Your task to perform on an android device: open app "DuckDuckGo Privacy Browser" (install if not already installed), go to login, and select forgot password Image 0: 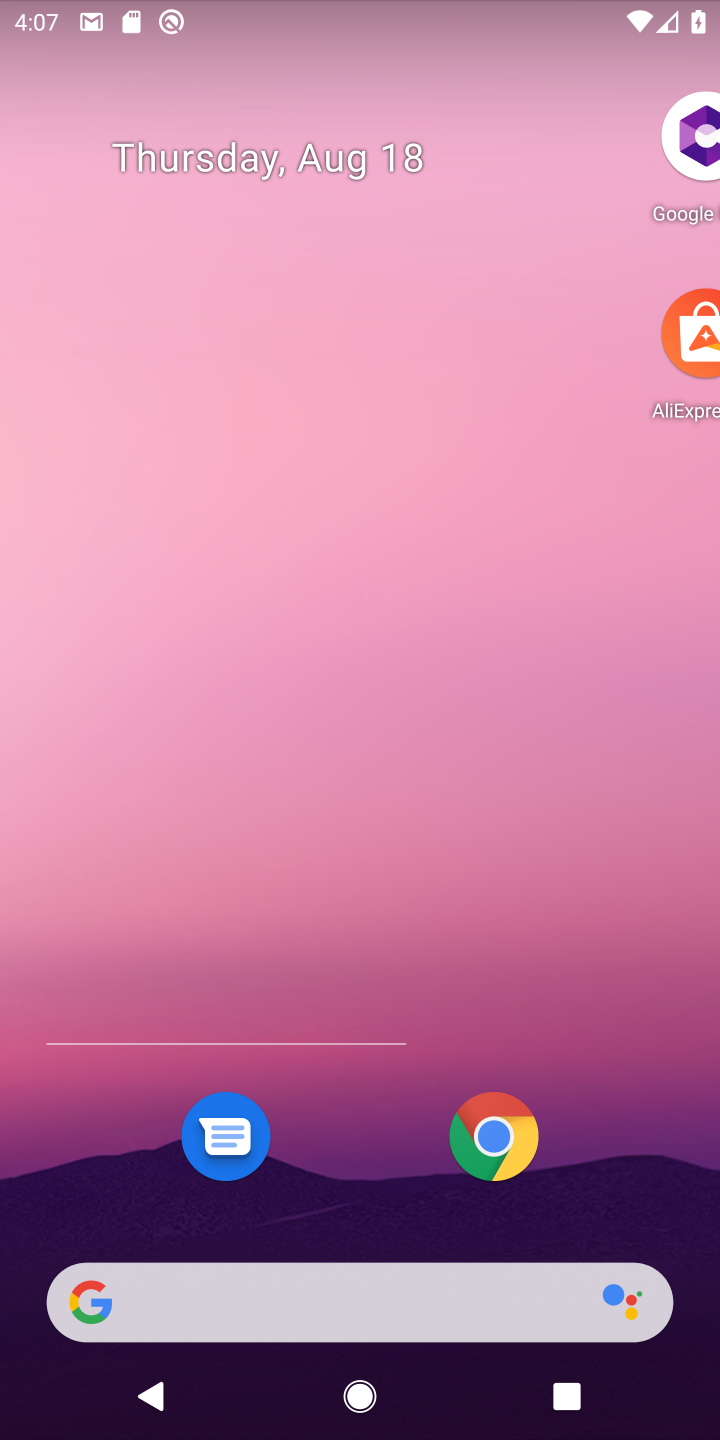
Step 0: click (223, 84)
Your task to perform on an android device: open app "DuckDuckGo Privacy Browser" (install if not already installed), go to login, and select forgot password Image 1: 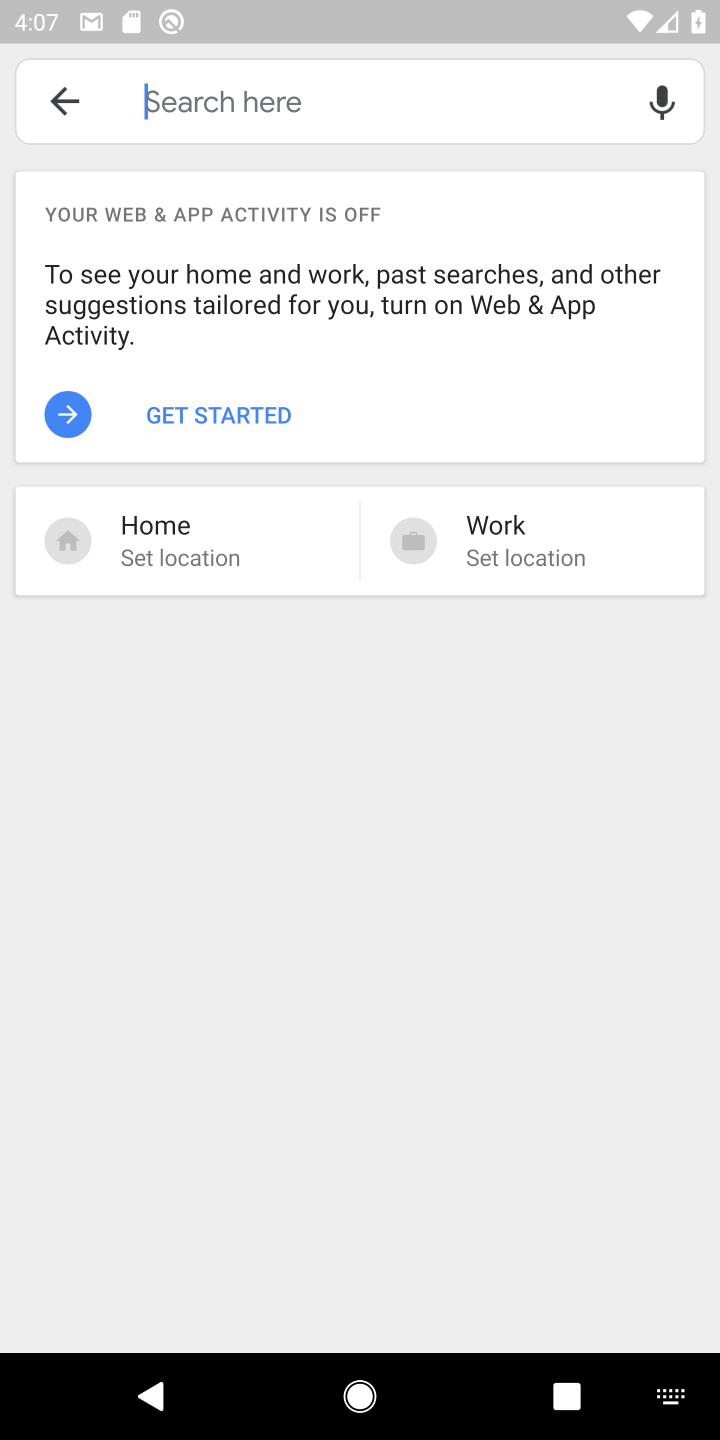
Step 1: press home button
Your task to perform on an android device: open app "DuckDuckGo Privacy Browser" (install if not already installed), go to login, and select forgot password Image 2: 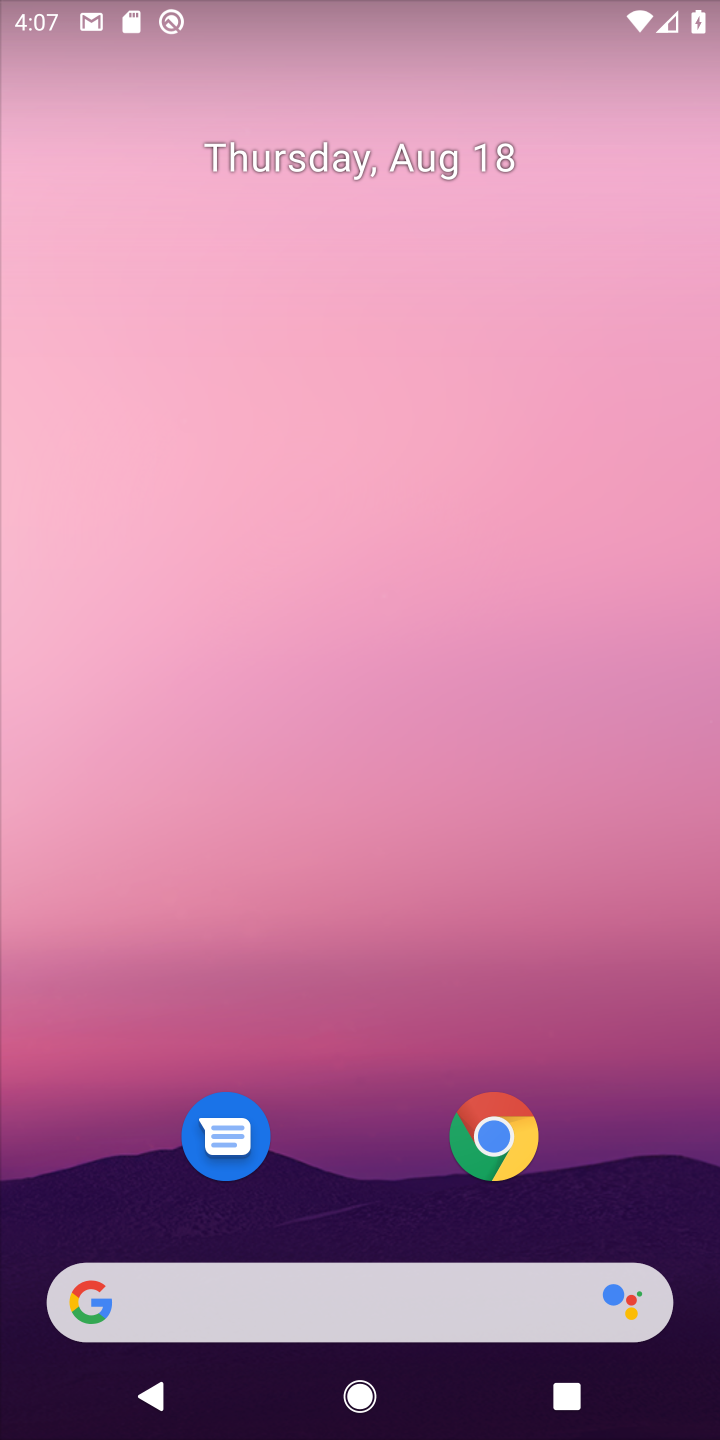
Step 2: drag from (322, 1176) to (346, 437)
Your task to perform on an android device: open app "DuckDuckGo Privacy Browser" (install if not already installed), go to login, and select forgot password Image 3: 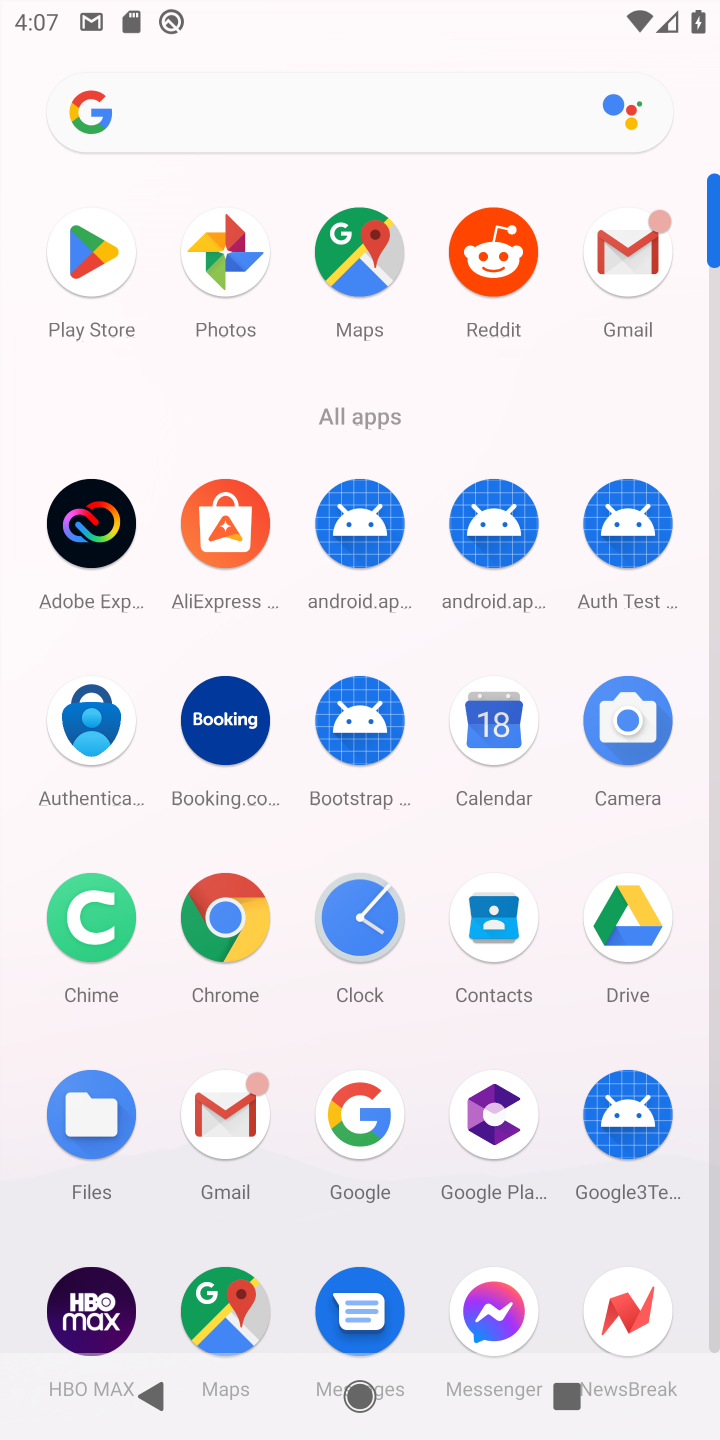
Step 3: drag from (419, 1178) to (438, 332)
Your task to perform on an android device: open app "DuckDuckGo Privacy Browser" (install if not already installed), go to login, and select forgot password Image 4: 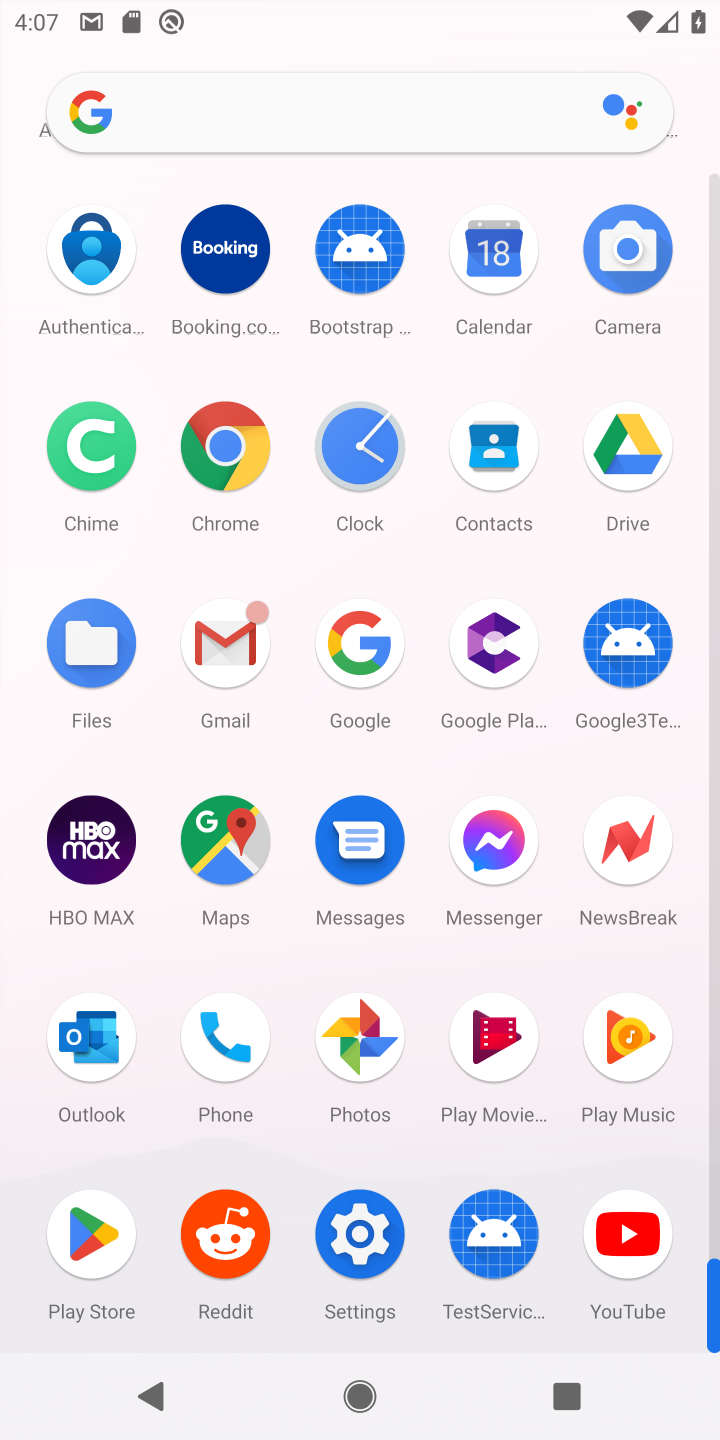
Step 4: click (96, 1252)
Your task to perform on an android device: open app "DuckDuckGo Privacy Browser" (install if not already installed), go to login, and select forgot password Image 5: 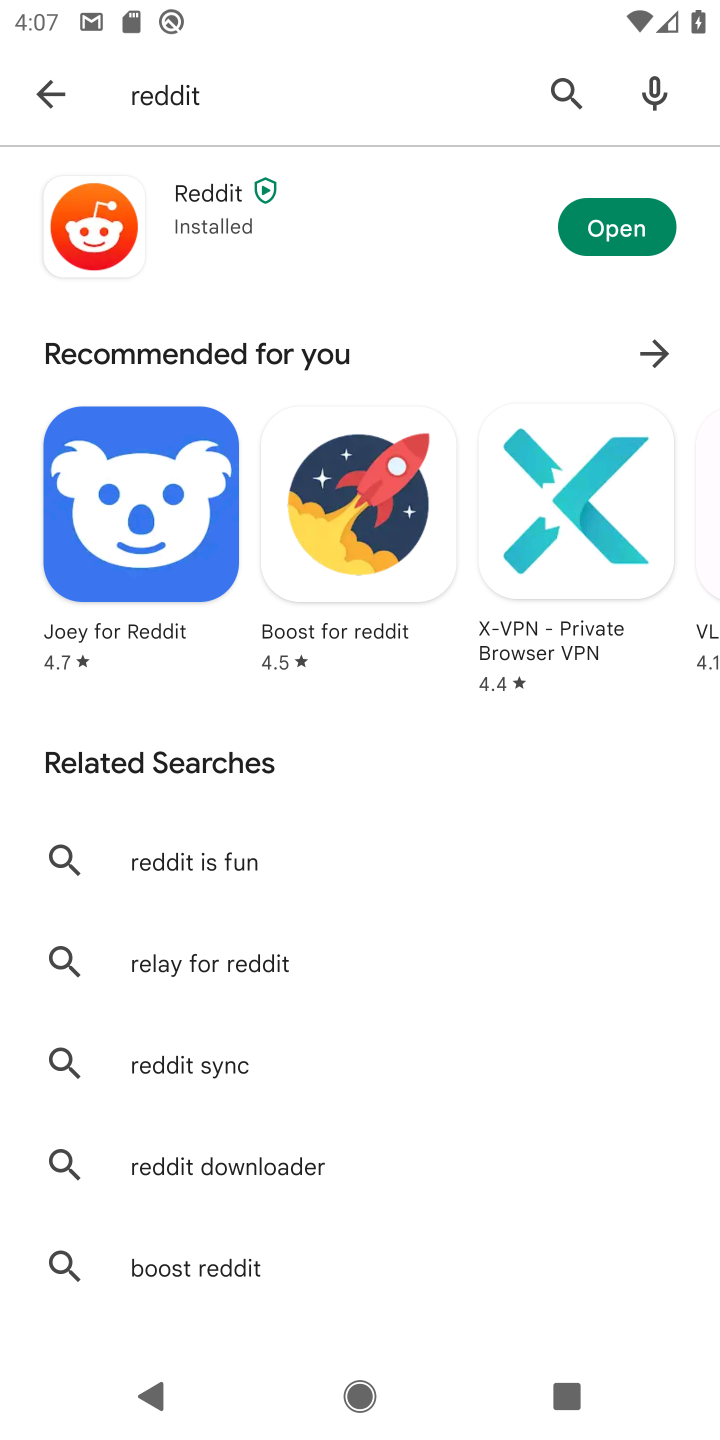
Step 5: click (223, 106)
Your task to perform on an android device: open app "DuckDuckGo Privacy Browser" (install if not already installed), go to login, and select forgot password Image 6: 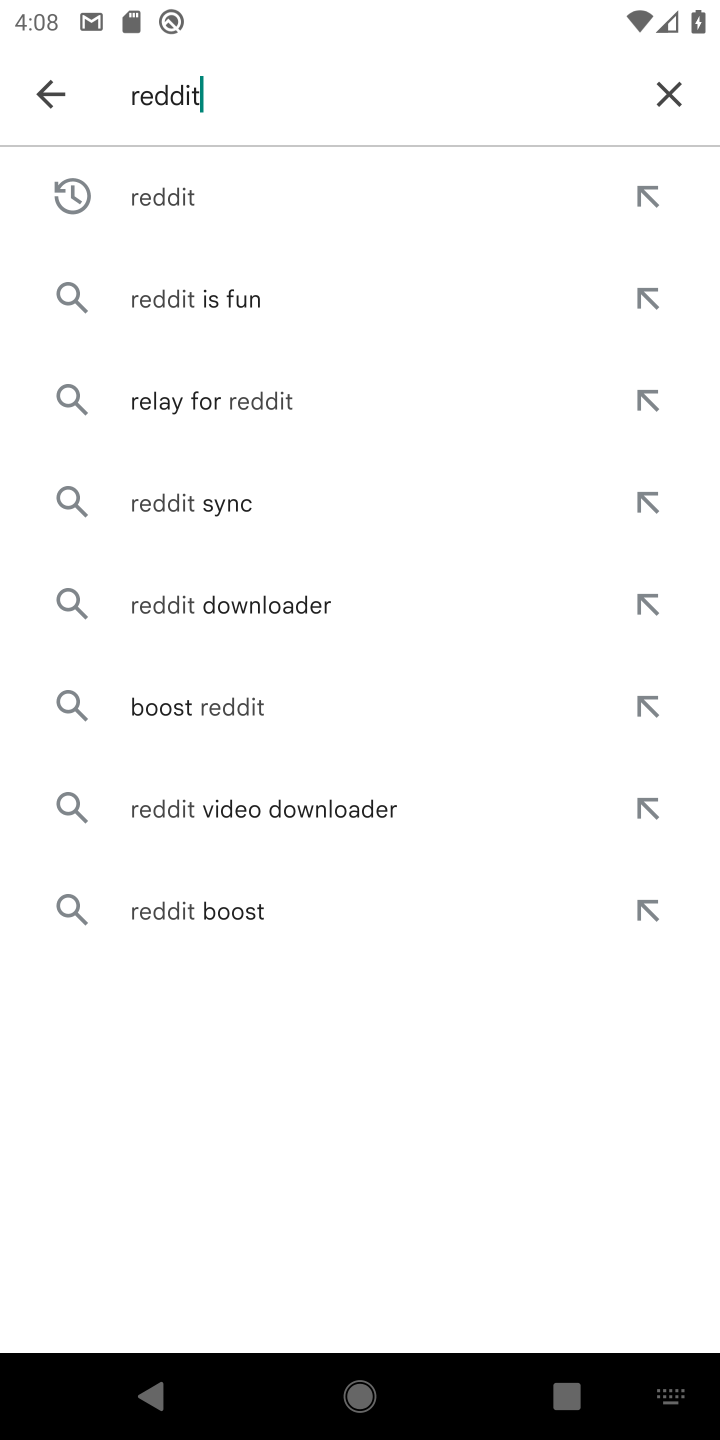
Step 6: click (666, 80)
Your task to perform on an android device: open app "DuckDuckGo Privacy Browser" (install if not already installed), go to login, and select forgot password Image 7: 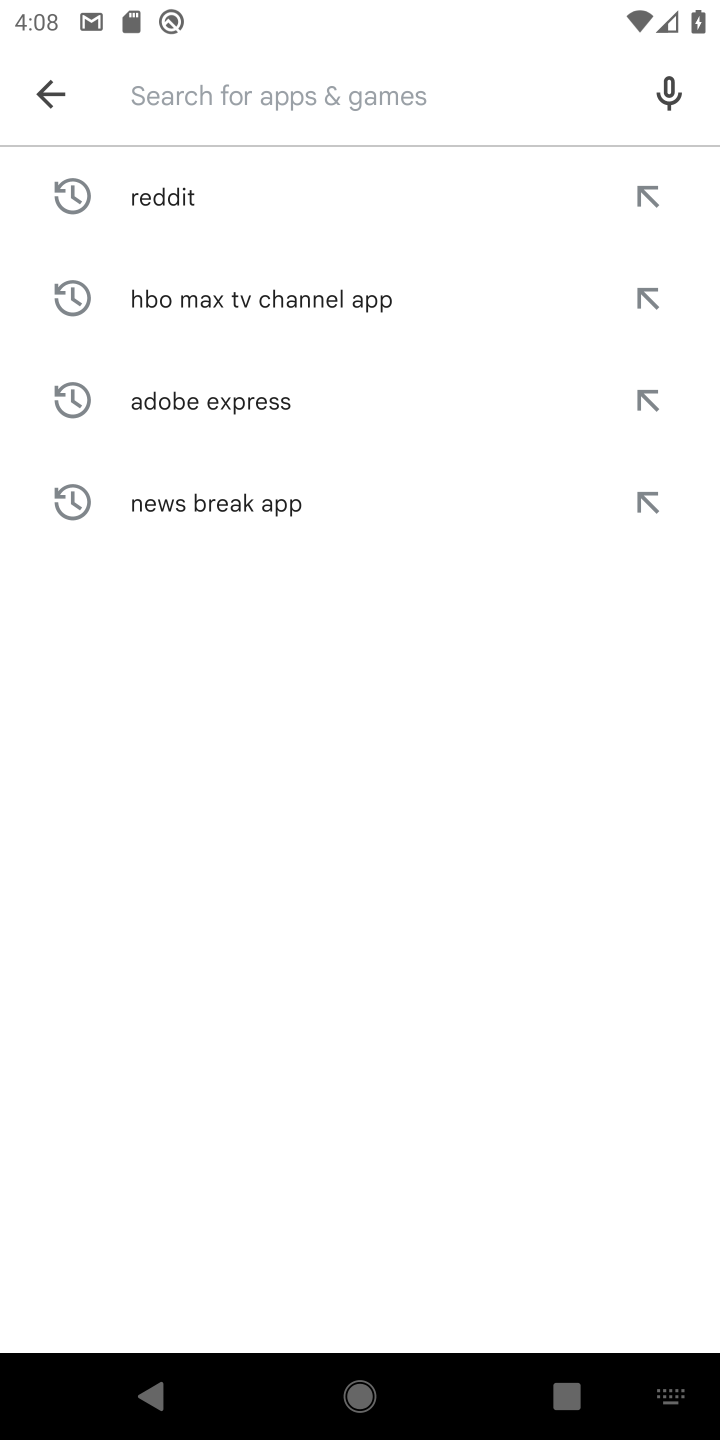
Step 7: type "Duck duck go"
Your task to perform on an android device: open app "DuckDuckGo Privacy Browser" (install if not already installed), go to login, and select forgot password Image 8: 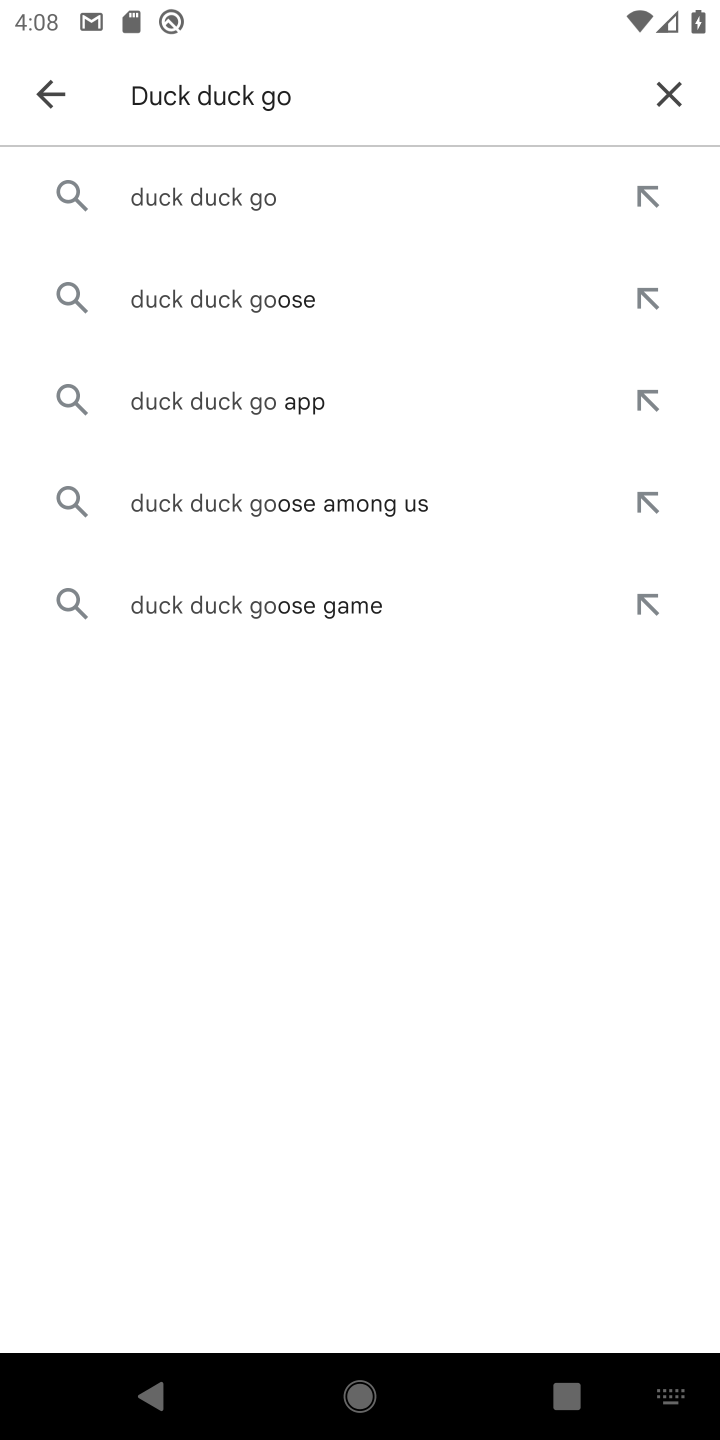
Step 8: click (170, 190)
Your task to perform on an android device: open app "DuckDuckGo Privacy Browser" (install if not already installed), go to login, and select forgot password Image 9: 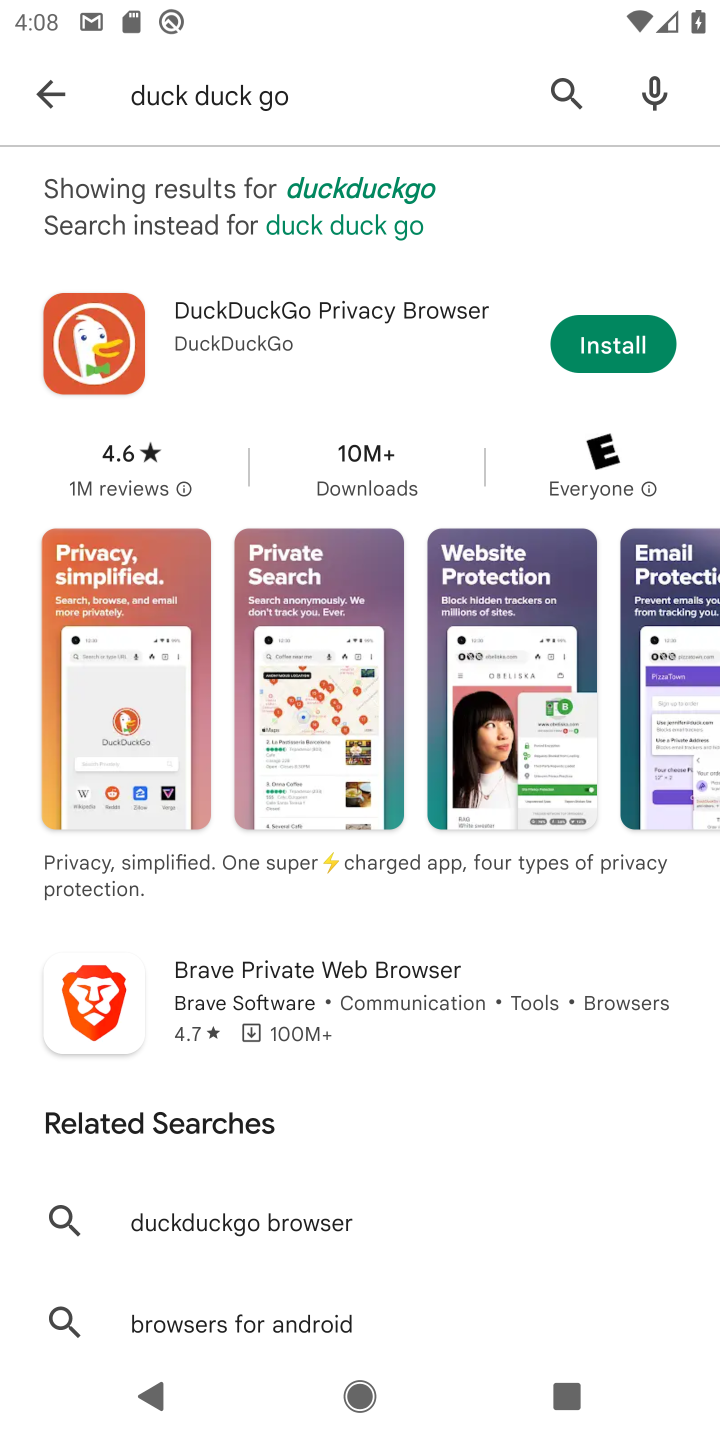
Step 9: click (636, 330)
Your task to perform on an android device: open app "DuckDuckGo Privacy Browser" (install if not already installed), go to login, and select forgot password Image 10: 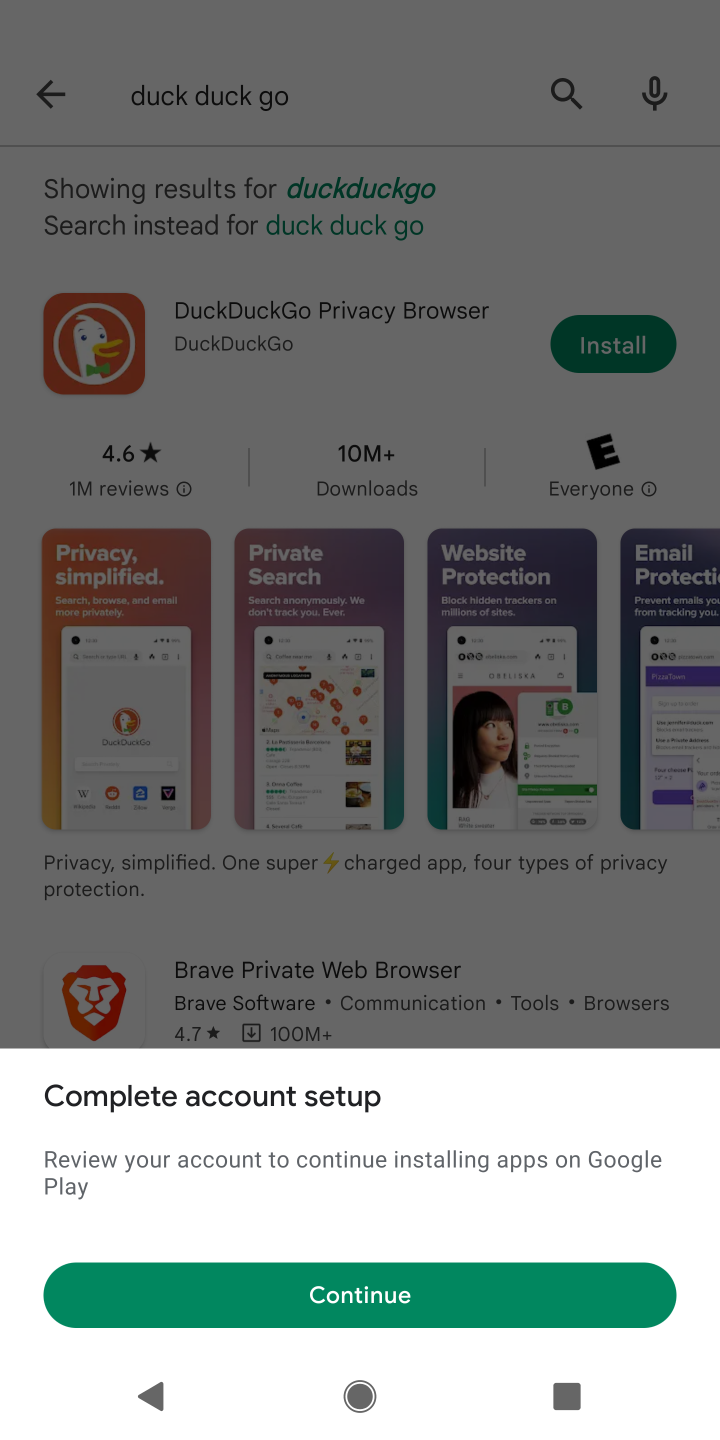
Step 10: click (419, 1305)
Your task to perform on an android device: open app "DuckDuckGo Privacy Browser" (install if not already installed), go to login, and select forgot password Image 11: 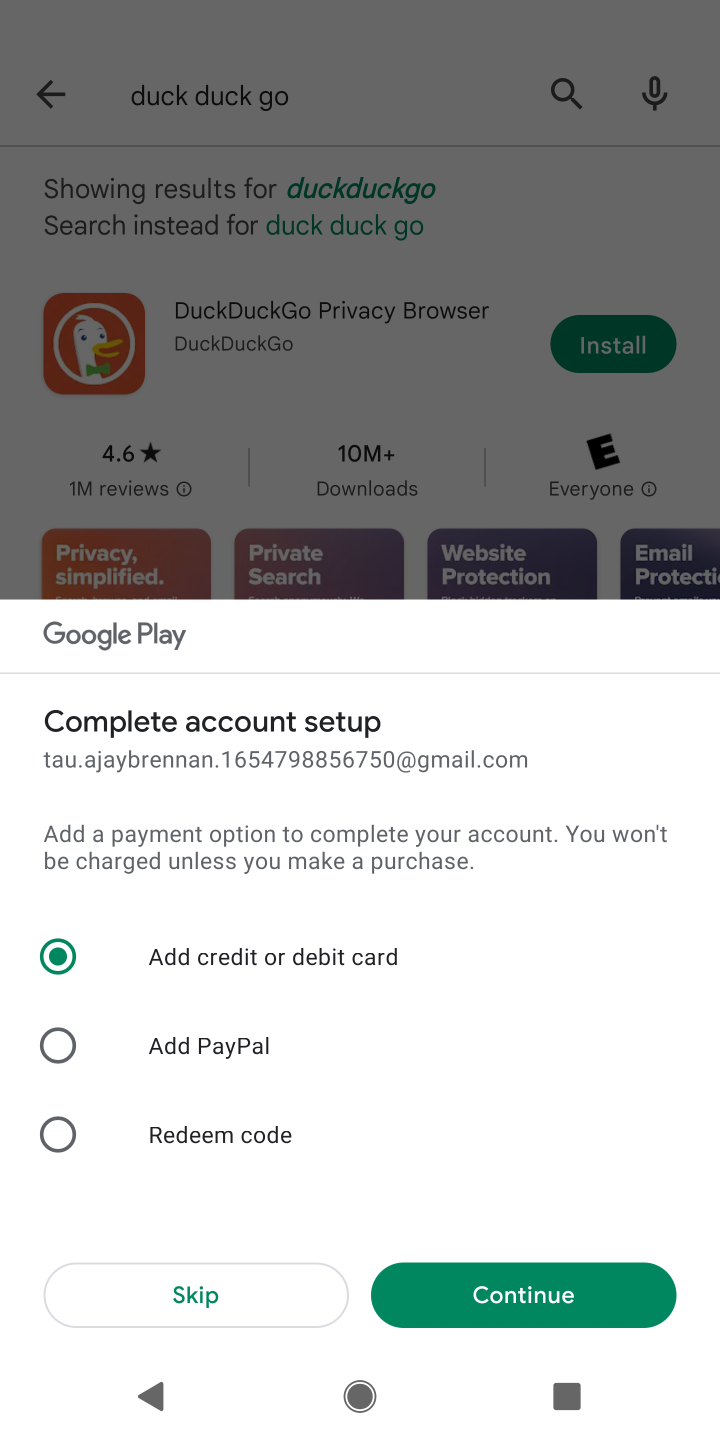
Step 11: click (181, 1295)
Your task to perform on an android device: open app "DuckDuckGo Privacy Browser" (install if not already installed), go to login, and select forgot password Image 12: 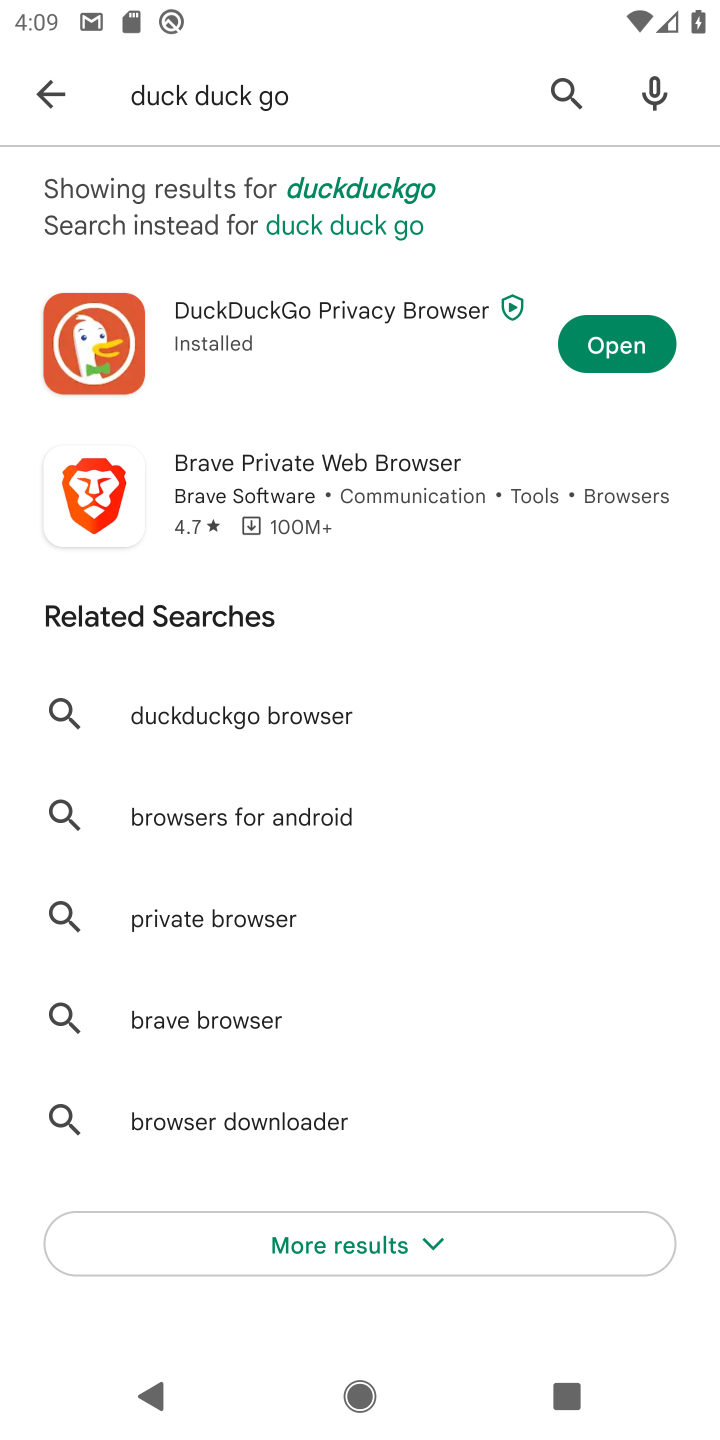
Step 12: click (595, 341)
Your task to perform on an android device: open app "DuckDuckGo Privacy Browser" (install if not already installed), go to login, and select forgot password Image 13: 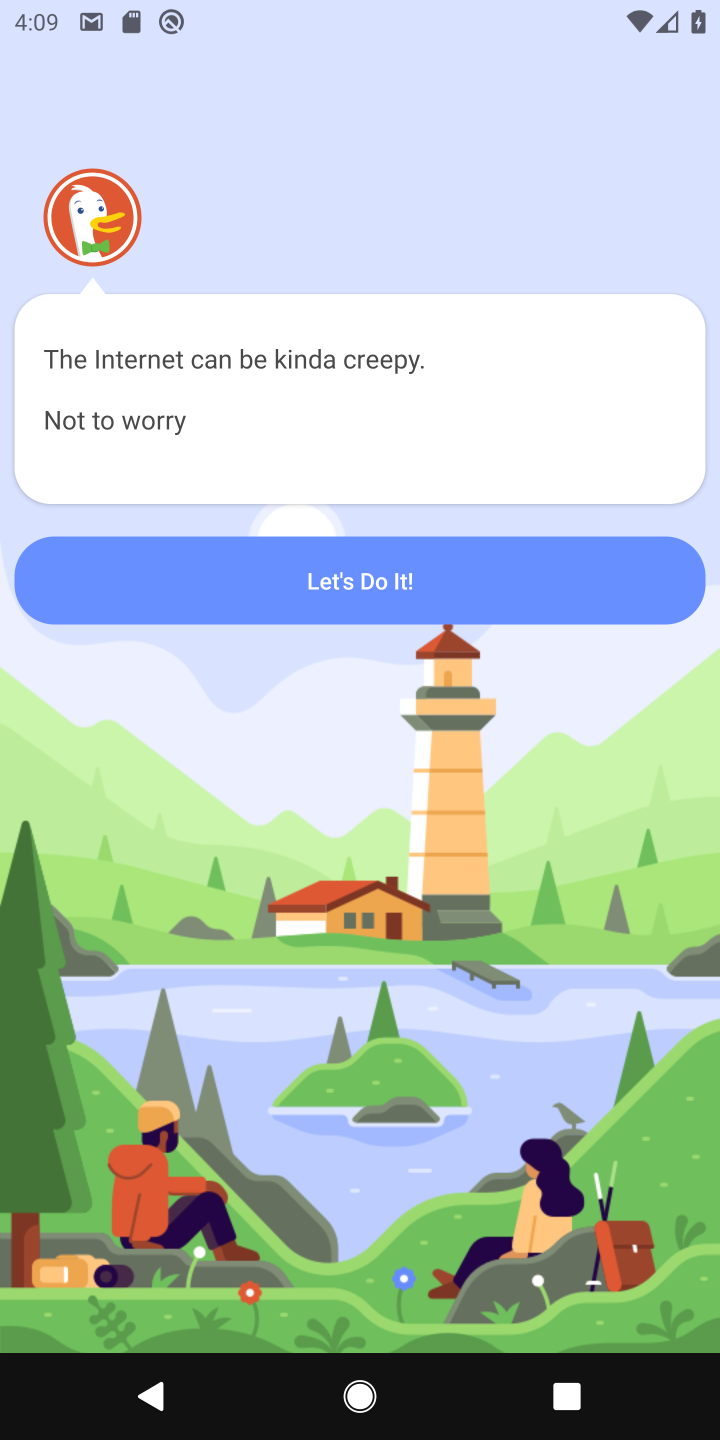
Step 13: click (422, 604)
Your task to perform on an android device: open app "DuckDuckGo Privacy Browser" (install if not already installed), go to login, and select forgot password Image 14: 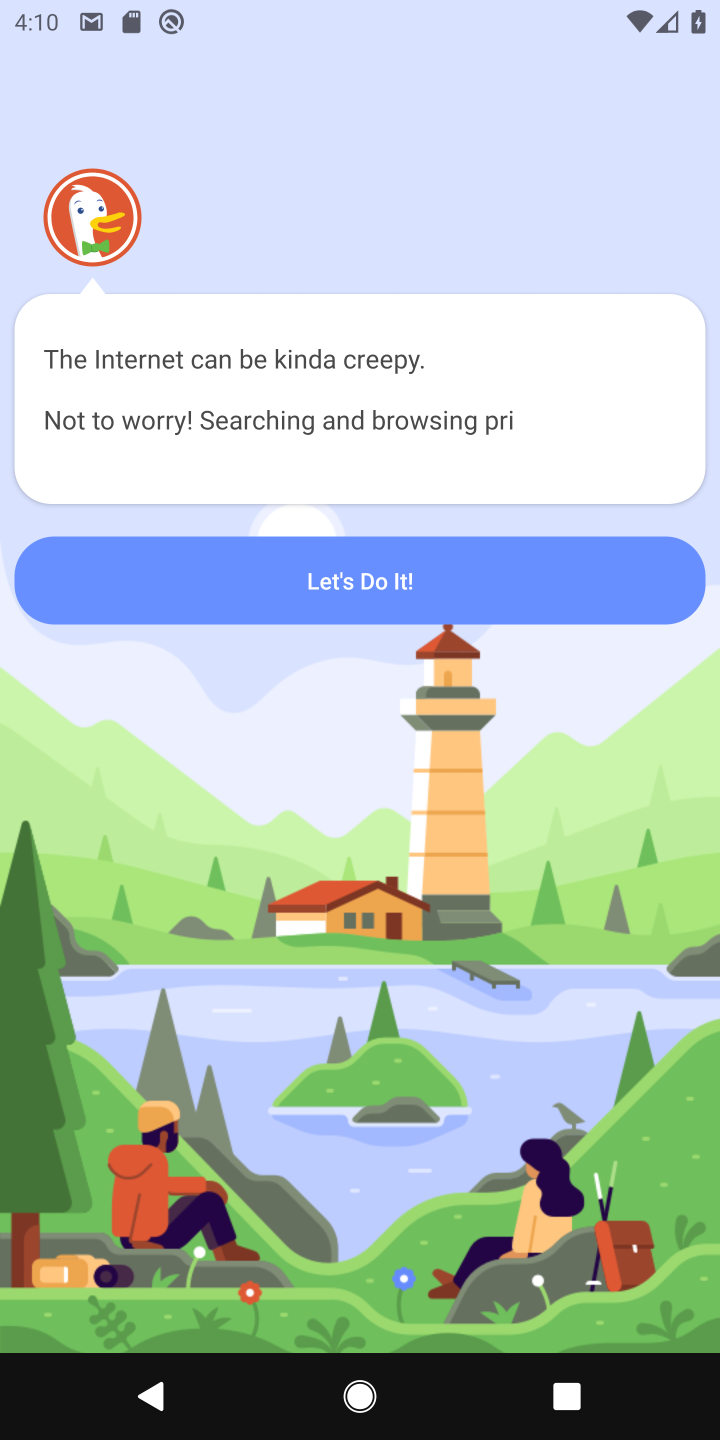
Step 14: click (368, 574)
Your task to perform on an android device: open app "DuckDuckGo Privacy Browser" (install if not already installed), go to login, and select forgot password Image 15: 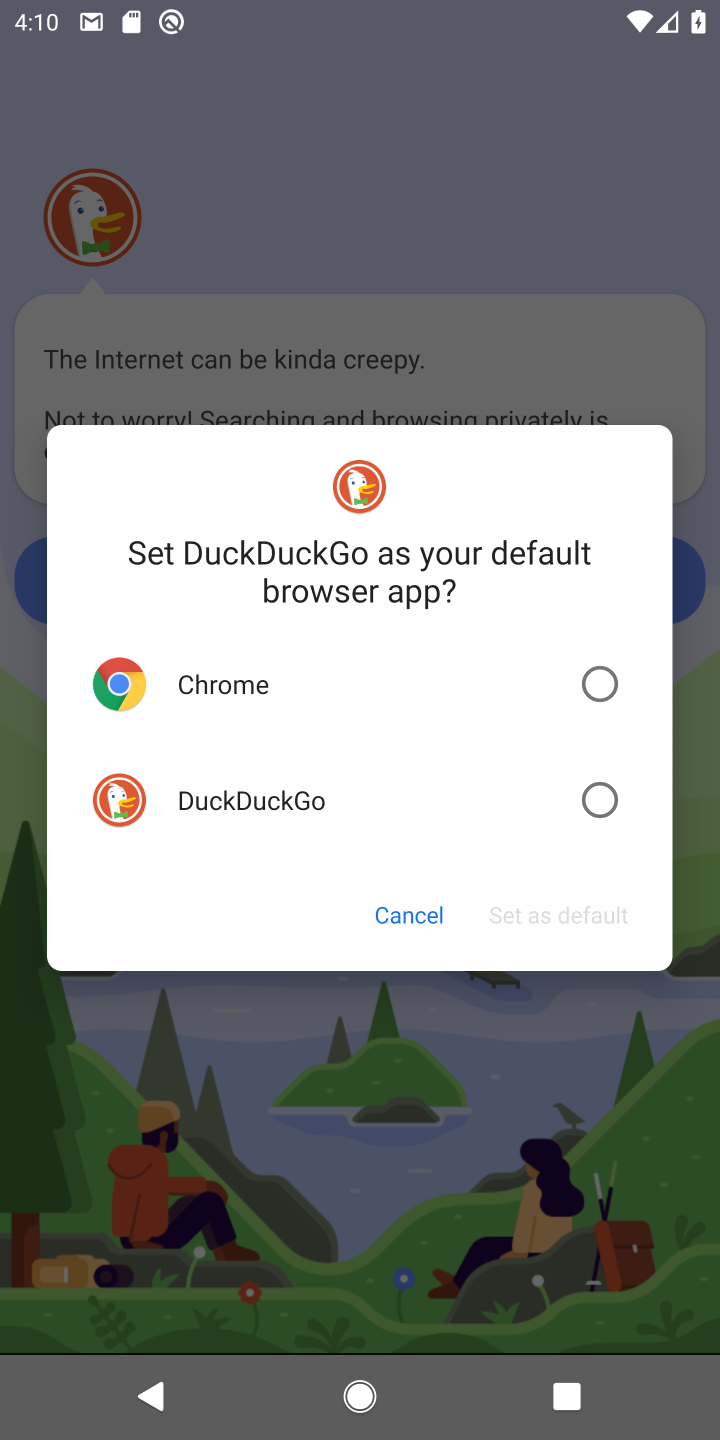
Step 15: click (321, 801)
Your task to perform on an android device: open app "DuckDuckGo Privacy Browser" (install if not already installed), go to login, and select forgot password Image 16: 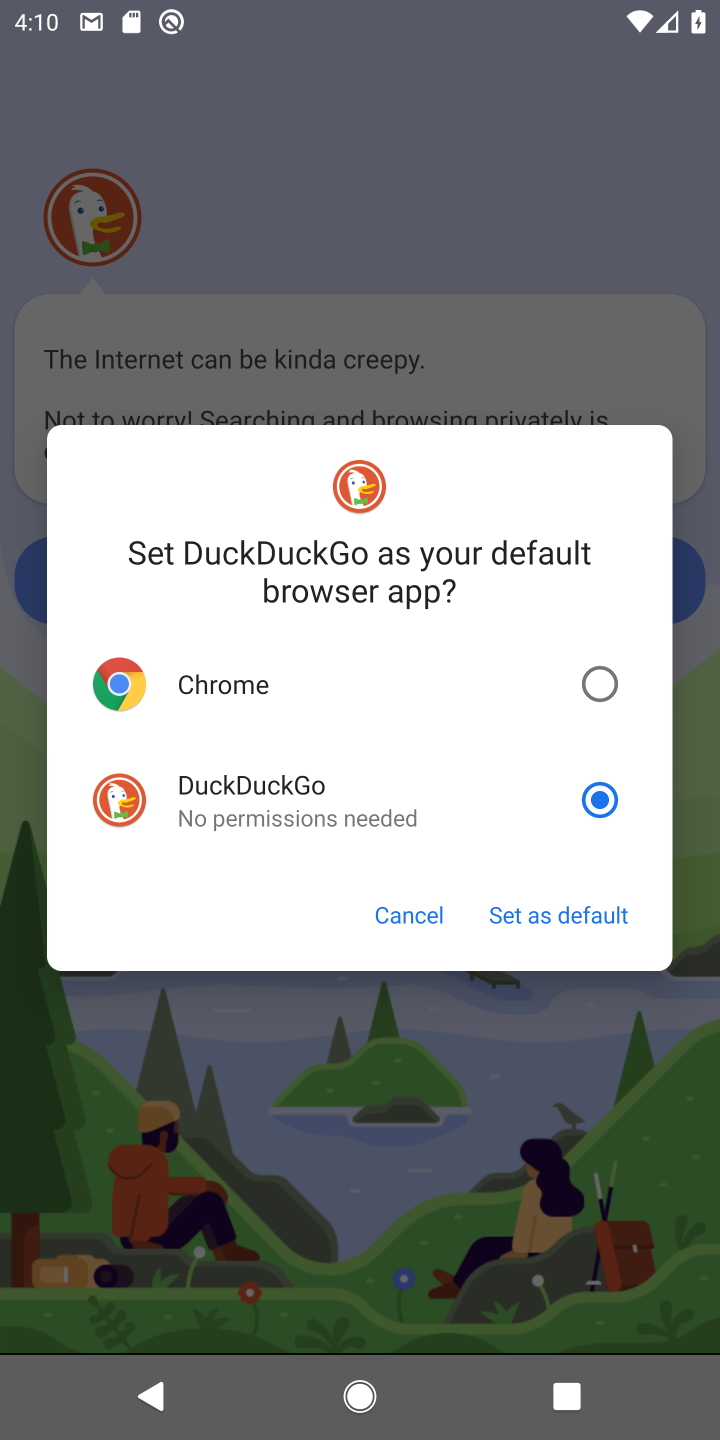
Step 16: click (587, 917)
Your task to perform on an android device: open app "DuckDuckGo Privacy Browser" (install if not already installed), go to login, and select forgot password Image 17: 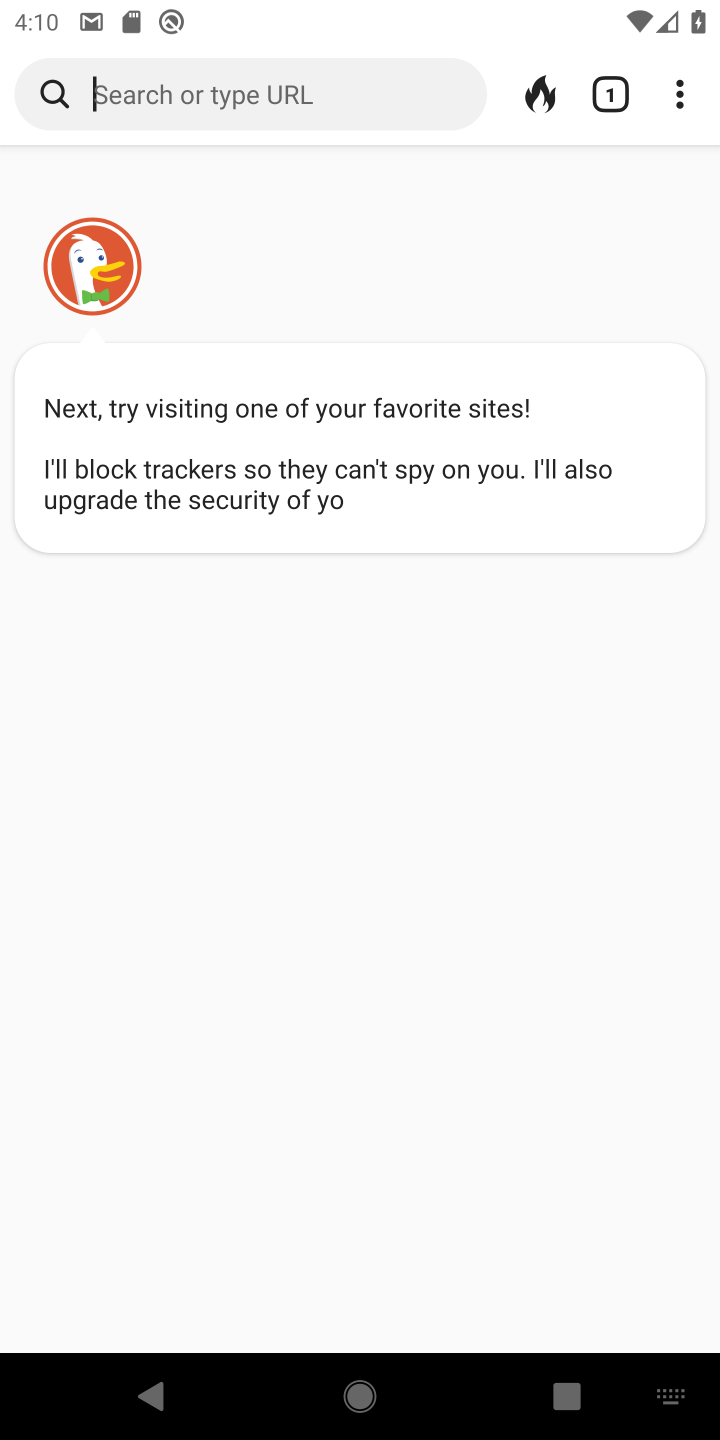
Step 17: click (672, 87)
Your task to perform on an android device: open app "DuckDuckGo Privacy Browser" (install if not already installed), go to login, and select forgot password Image 18: 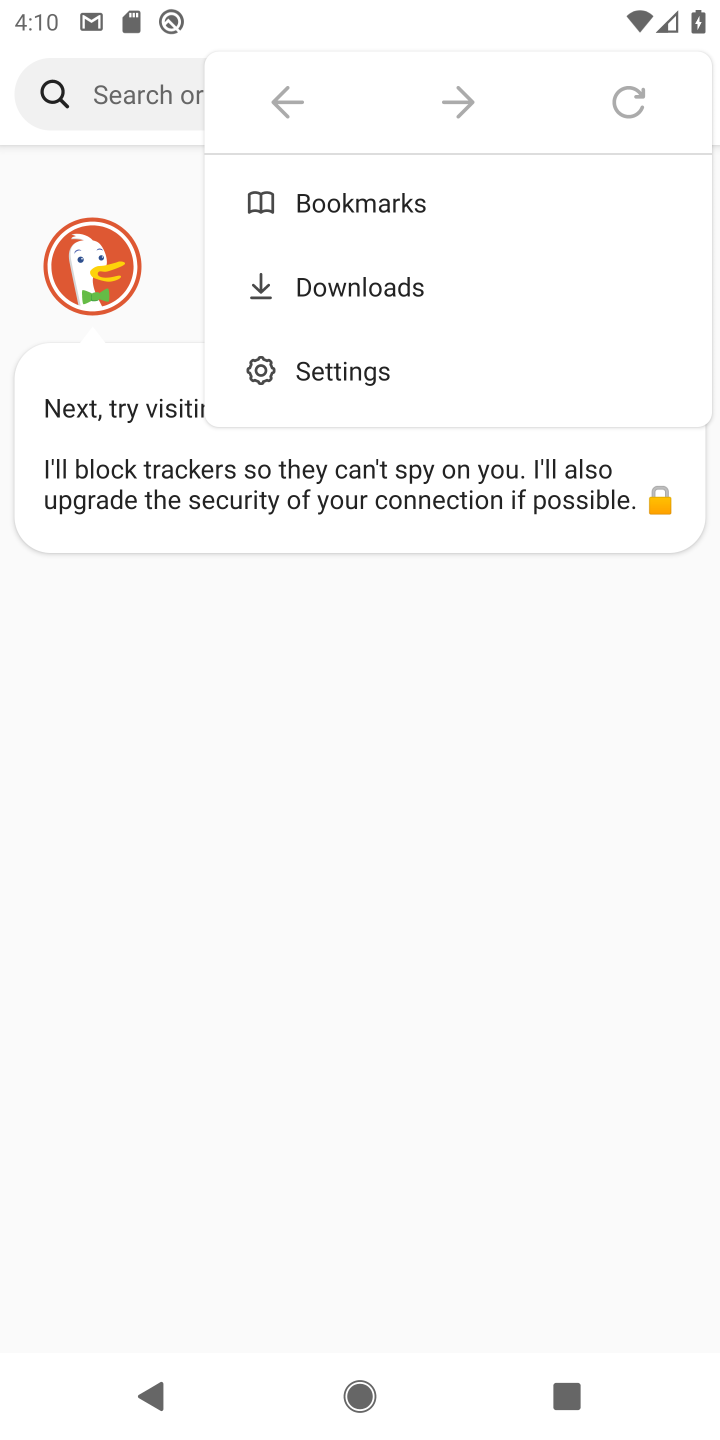
Step 18: click (359, 369)
Your task to perform on an android device: open app "DuckDuckGo Privacy Browser" (install if not already installed), go to login, and select forgot password Image 19: 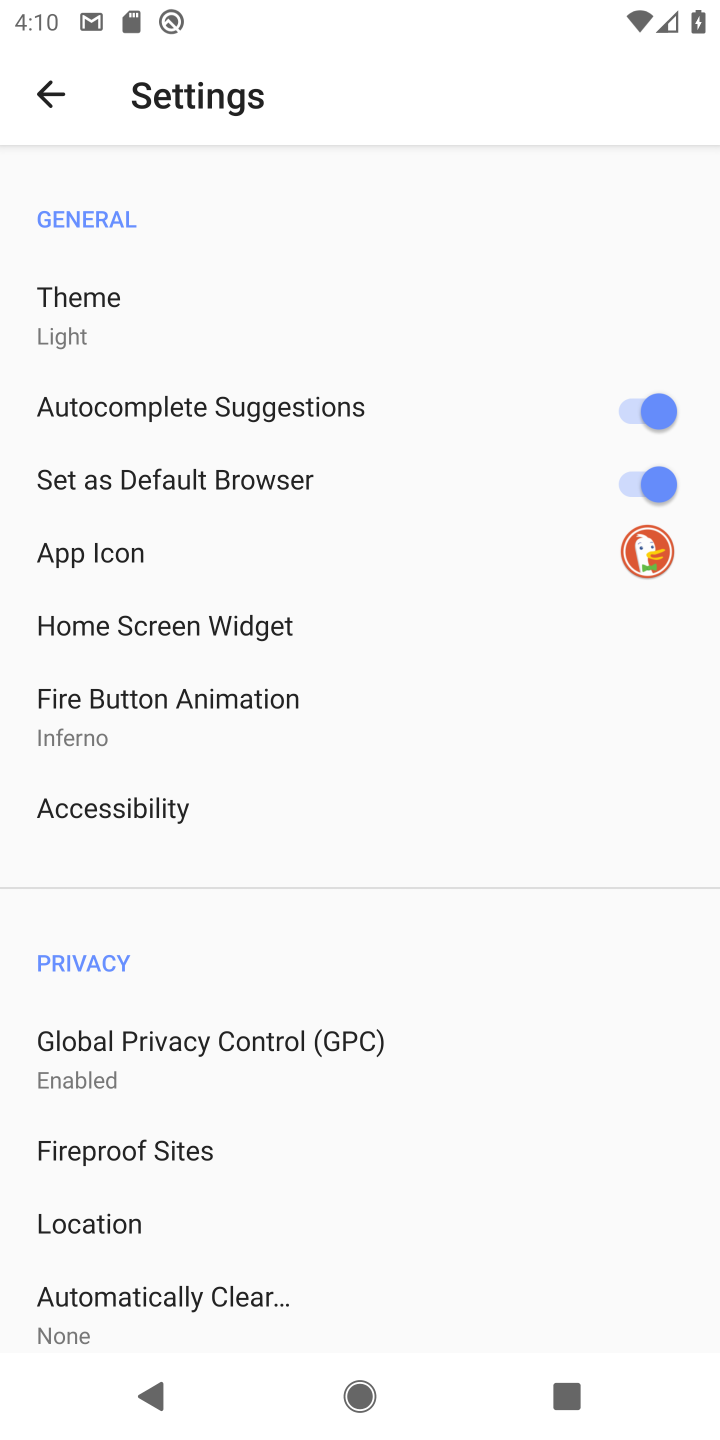
Step 19: task complete